Your task to perform on an android device: What is the news today? Image 0: 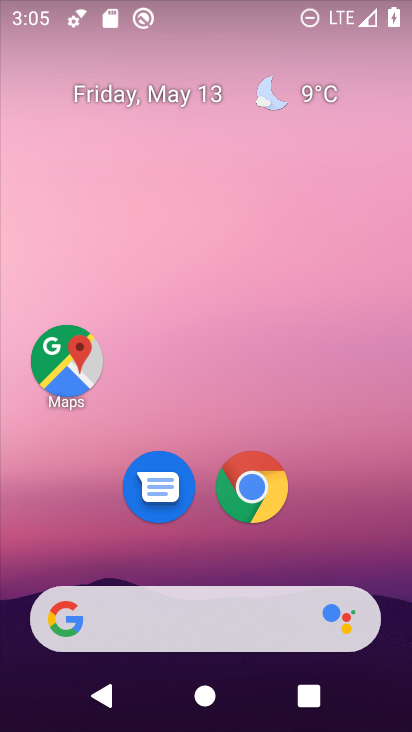
Step 0: drag from (12, 245) to (363, 252)
Your task to perform on an android device: What is the news today? Image 1: 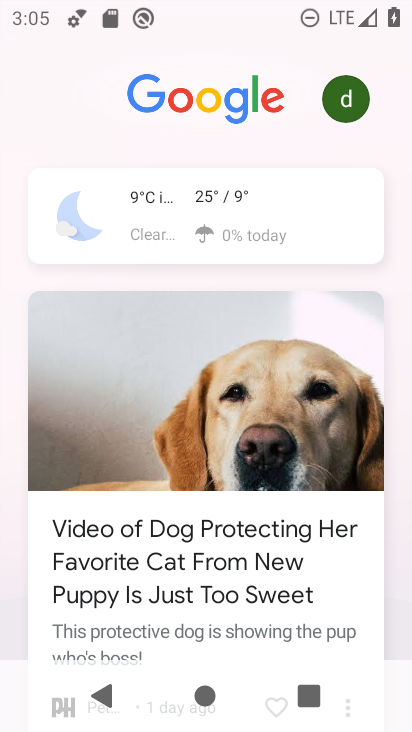
Step 1: task complete